Your task to perform on an android device: open app "Move to iOS" (install if not already installed) Image 0: 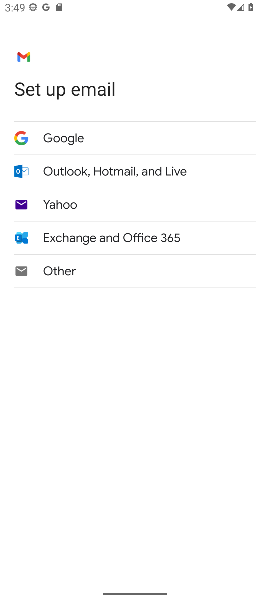
Step 0: press home button
Your task to perform on an android device: open app "Move to iOS" (install if not already installed) Image 1: 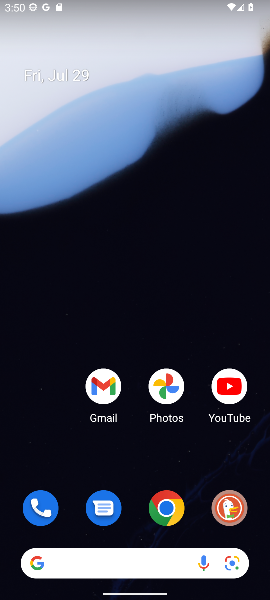
Step 1: drag from (119, 454) to (100, 17)
Your task to perform on an android device: open app "Move to iOS" (install if not already installed) Image 2: 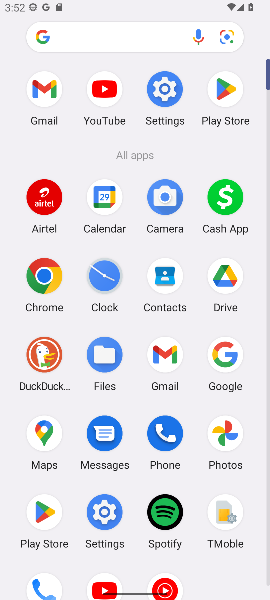
Step 2: click (237, 94)
Your task to perform on an android device: open app "Move to iOS" (install if not already installed) Image 3: 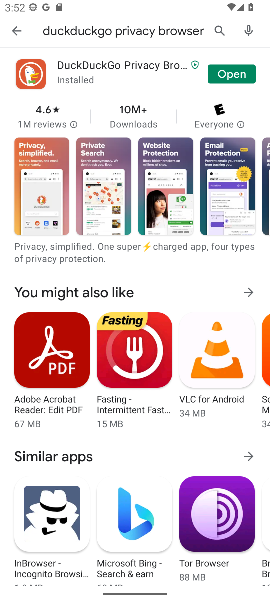
Step 3: press back button
Your task to perform on an android device: open app "Move to iOS" (install if not already installed) Image 4: 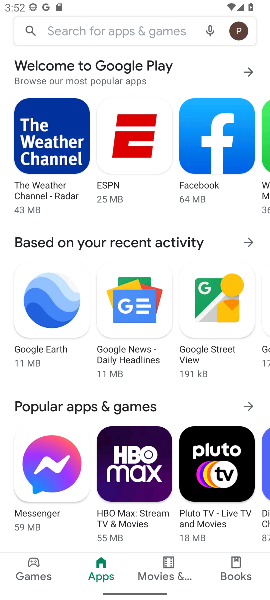
Step 4: click (75, 31)
Your task to perform on an android device: open app "Move to iOS" (install if not already installed) Image 5: 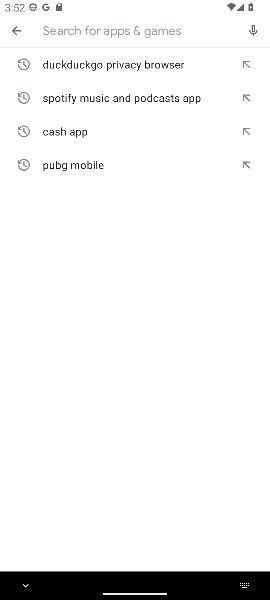
Step 5: type "Move to iOS"
Your task to perform on an android device: open app "Move to iOS" (install if not already installed) Image 6: 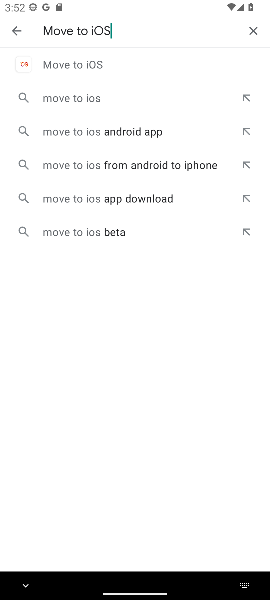
Step 6: click (62, 61)
Your task to perform on an android device: open app "Move to iOS" (install if not already installed) Image 7: 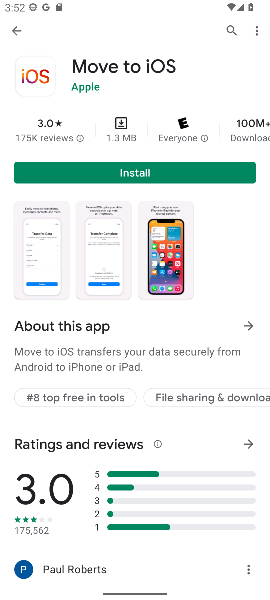
Step 7: task complete